Your task to perform on an android device: Go to display settings Image 0: 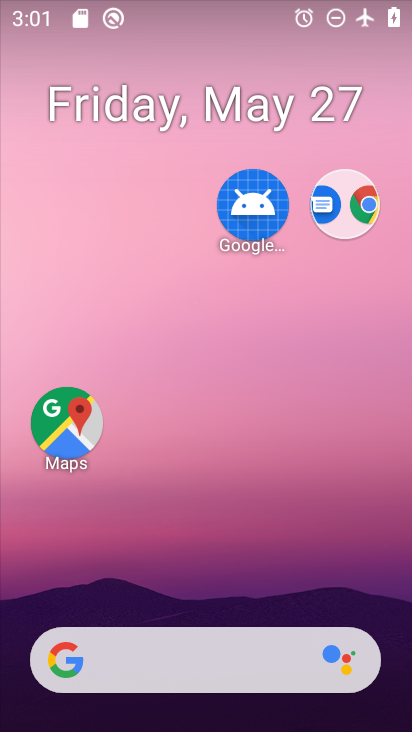
Step 0: drag from (274, 620) to (383, 20)
Your task to perform on an android device: Go to display settings Image 1: 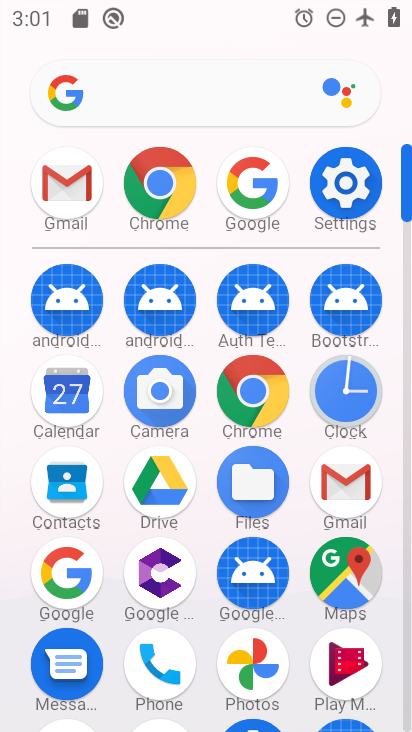
Step 1: click (357, 179)
Your task to perform on an android device: Go to display settings Image 2: 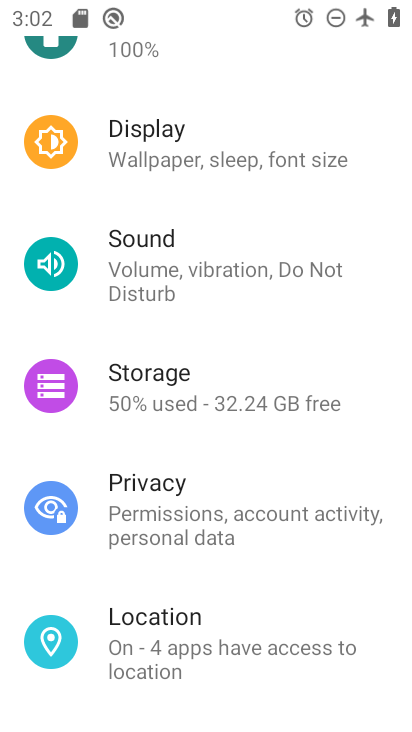
Step 2: drag from (198, 183) to (181, 429)
Your task to perform on an android device: Go to display settings Image 3: 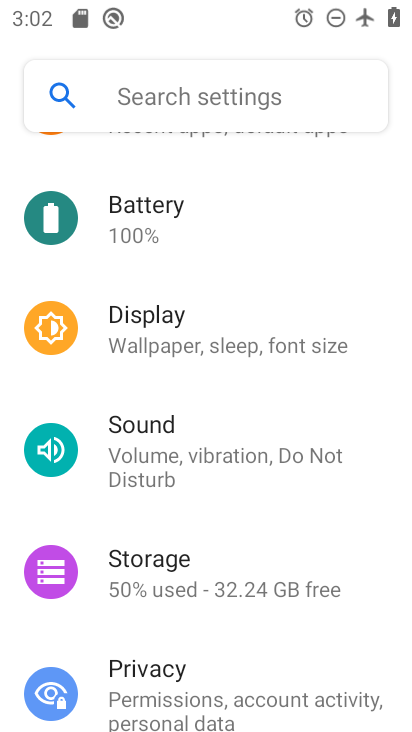
Step 3: click (197, 331)
Your task to perform on an android device: Go to display settings Image 4: 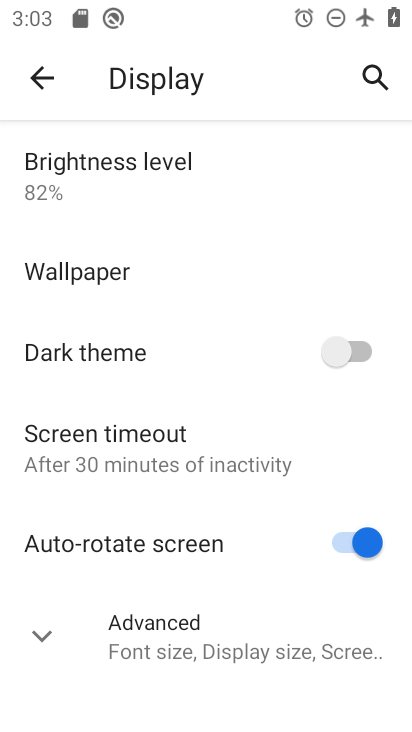
Step 4: task complete